Your task to perform on an android device: Go to Android settings Image 0: 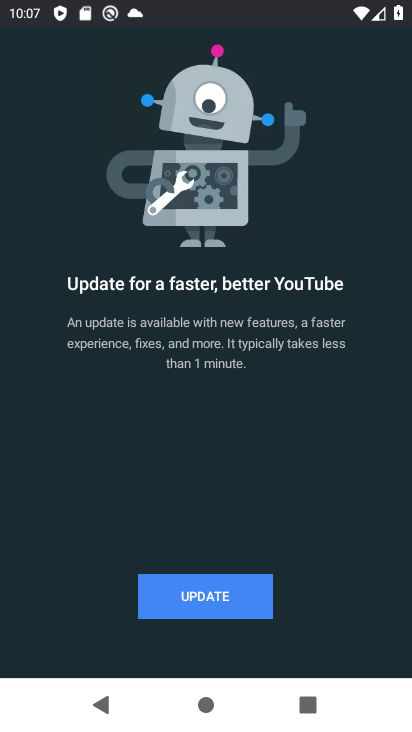
Step 0: press home button
Your task to perform on an android device: Go to Android settings Image 1: 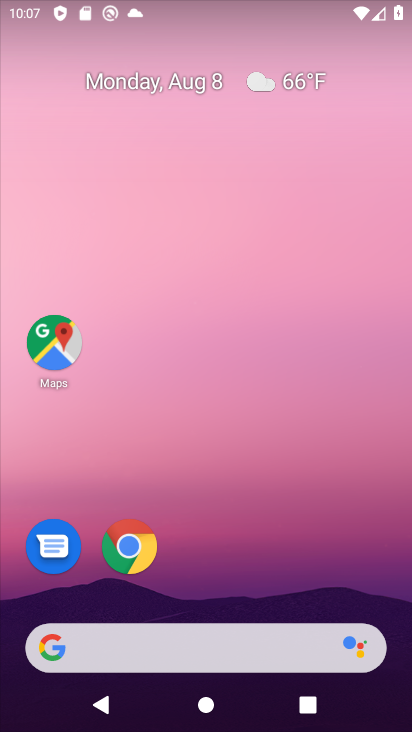
Step 1: drag from (270, 561) to (315, 214)
Your task to perform on an android device: Go to Android settings Image 2: 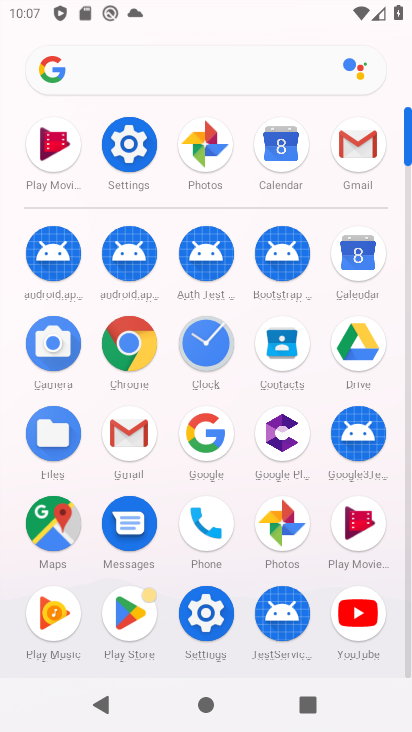
Step 2: click (211, 613)
Your task to perform on an android device: Go to Android settings Image 3: 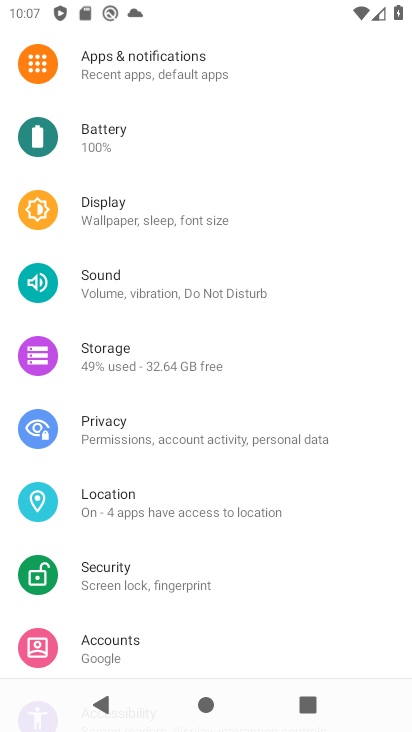
Step 3: task complete